Your task to perform on an android device: Open Amazon Image 0: 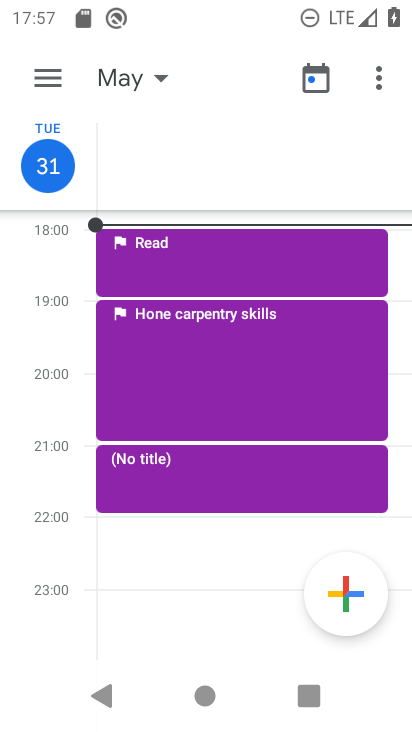
Step 0: press home button
Your task to perform on an android device: Open Amazon Image 1: 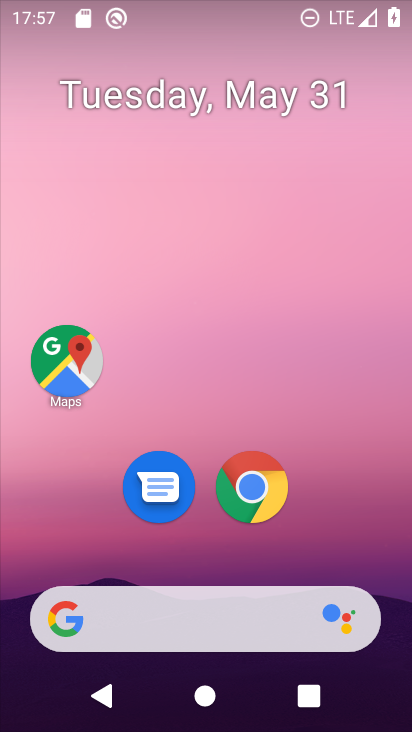
Step 1: click (255, 484)
Your task to perform on an android device: Open Amazon Image 2: 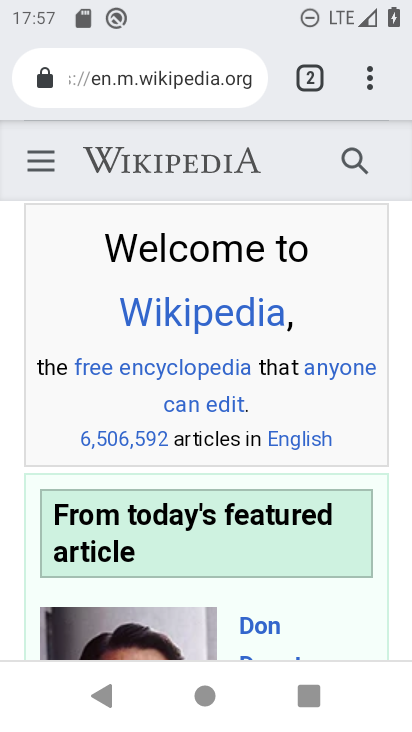
Step 2: click (368, 75)
Your task to perform on an android device: Open Amazon Image 3: 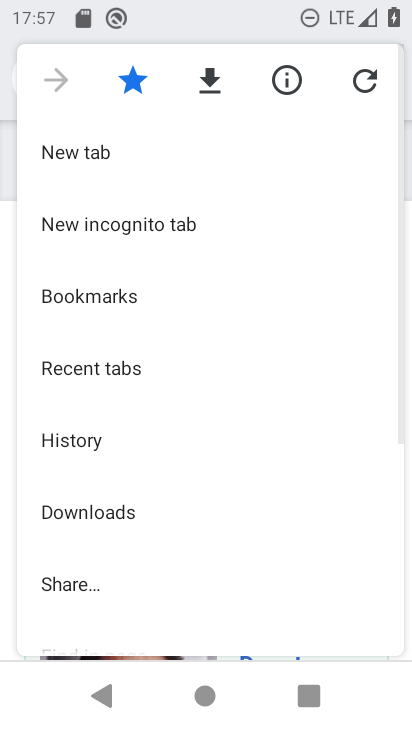
Step 3: click (66, 151)
Your task to perform on an android device: Open Amazon Image 4: 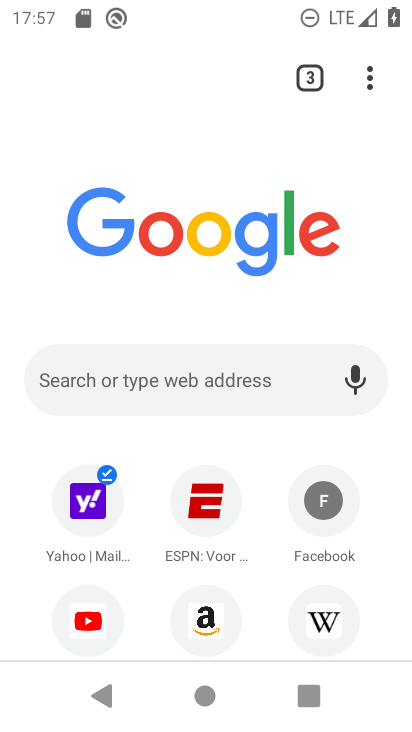
Step 4: click (189, 627)
Your task to perform on an android device: Open Amazon Image 5: 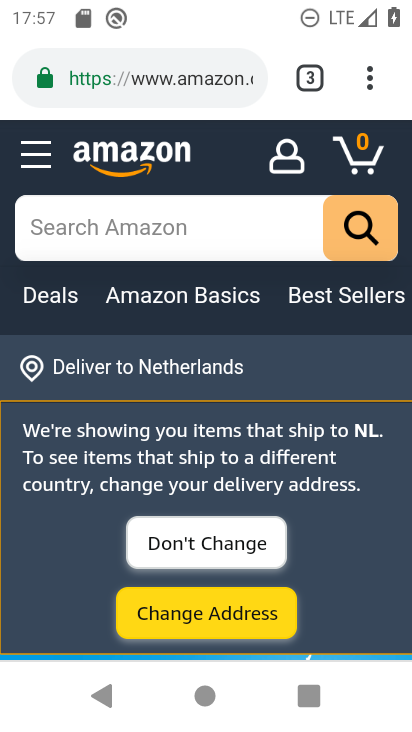
Step 5: task complete